Your task to perform on an android device: Search for seafood restaurants on Google Maps Image 0: 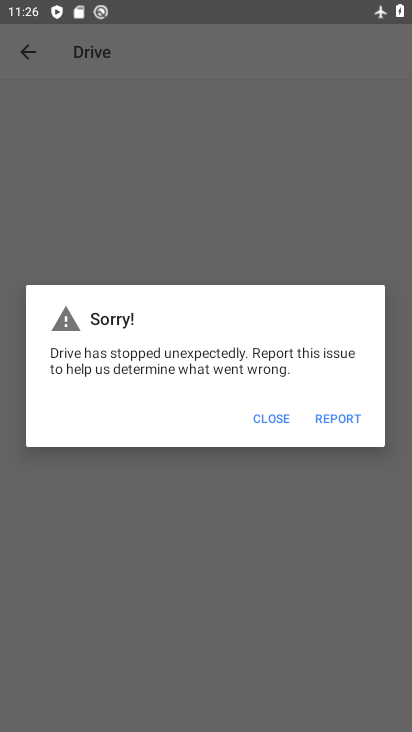
Step 0: press home button
Your task to perform on an android device: Search for seafood restaurants on Google Maps Image 1: 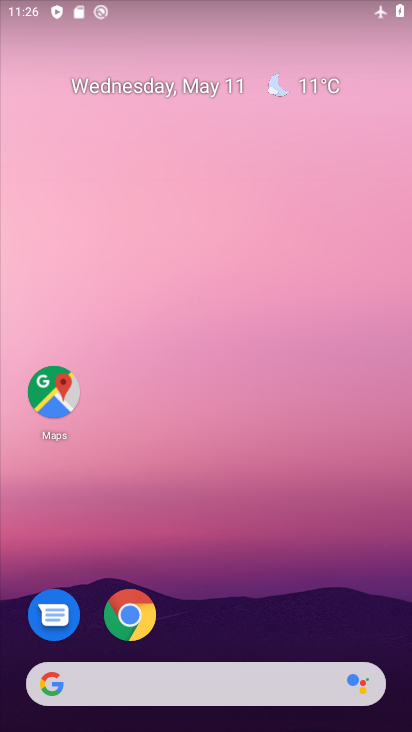
Step 1: drag from (279, 626) to (253, 159)
Your task to perform on an android device: Search for seafood restaurants on Google Maps Image 2: 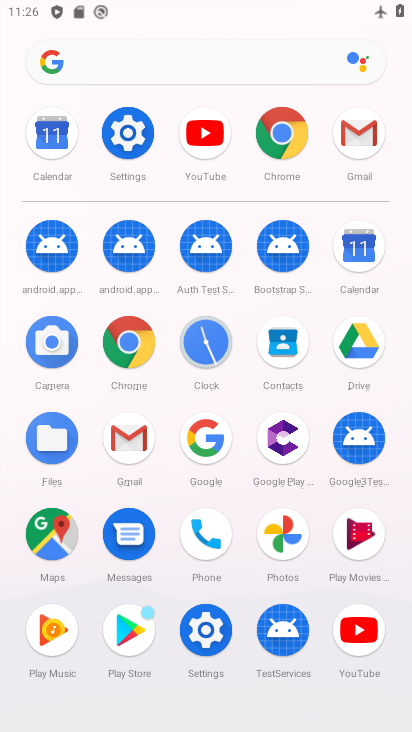
Step 2: click (48, 531)
Your task to perform on an android device: Search for seafood restaurants on Google Maps Image 3: 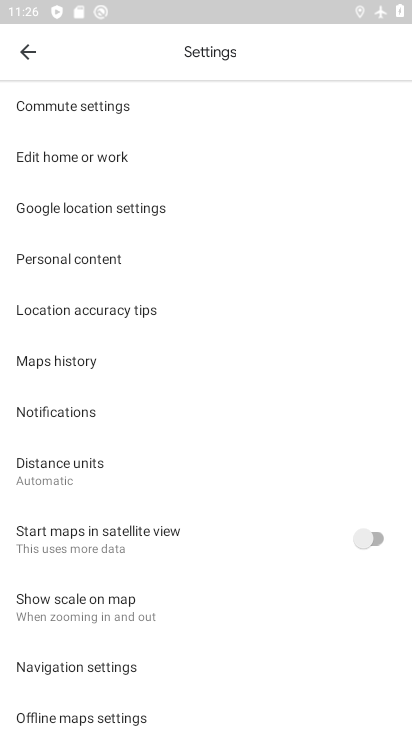
Step 3: click (15, 55)
Your task to perform on an android device: Search for seafood restaurants on Google Maps Image 4: 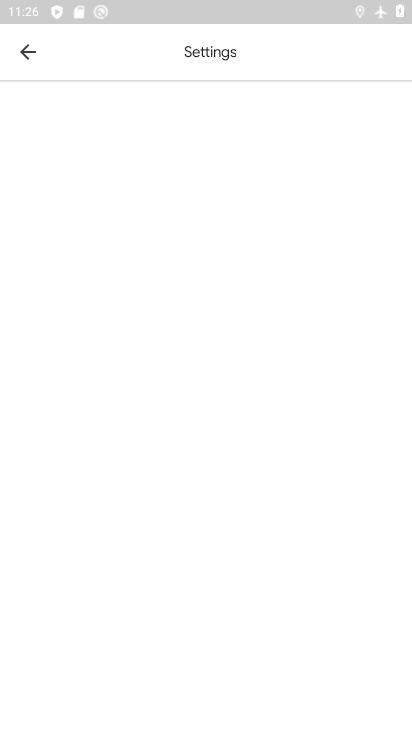
Step 4: click (21, 50)
Your task to perform on an android device: Search for seafood restaurants on Google Maps Image 5: 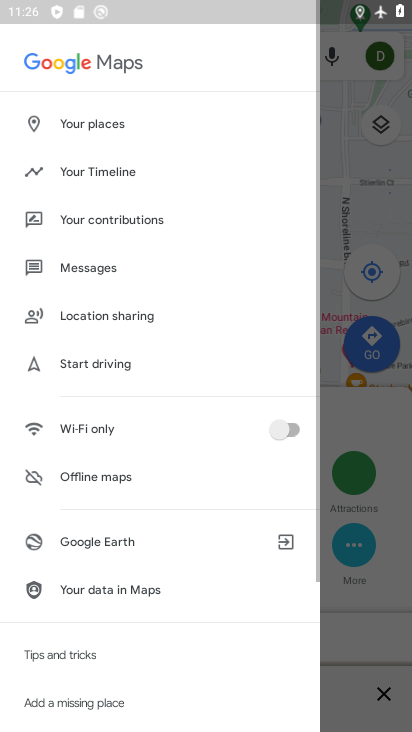
Step 5: click (148, 55)
Your task to perform on an android device: Search for seafood restaurants on Google Maps Image 6: 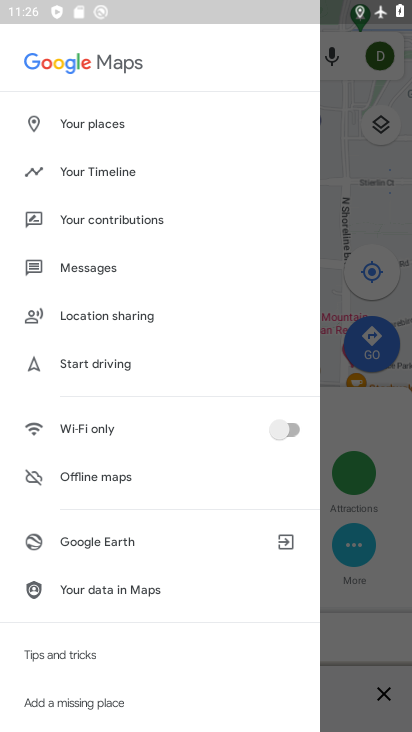
Step 6: click (364, 123)
Your task to perform on an android device: Search for seafood restaurants on Google Maps Image 7: 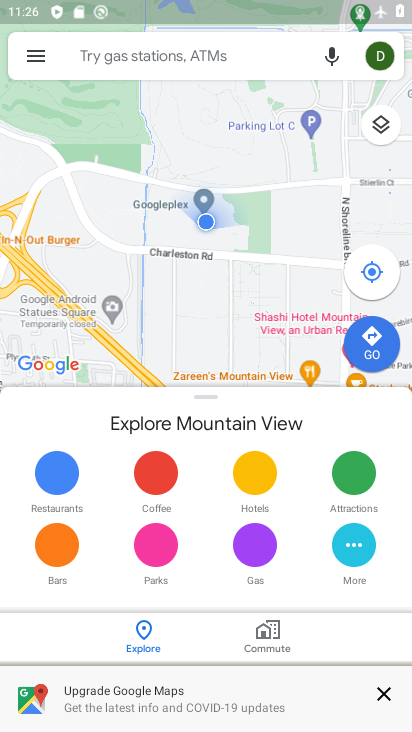
Step 7: click (242, 56)
Your task to perform on an android device: Search for seafood restaurants on Google Maps Image 8: 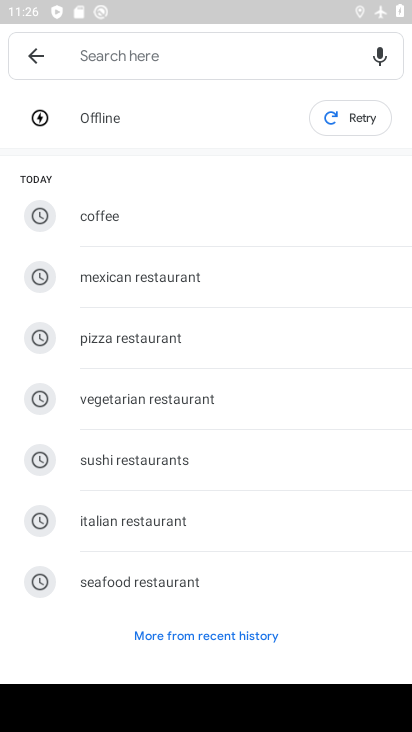
Step 8: type "seafood restaurants"
Your task to perform on an android device: Search for seafood restaurants on Google Maps Image 9: 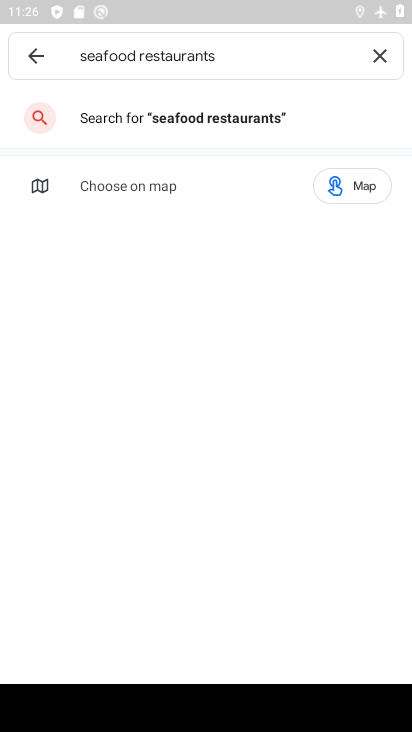
Step 9: click (254, 118)
Your task to perform on an android device: Search for seafood restaurants on Google Maps Image 10: 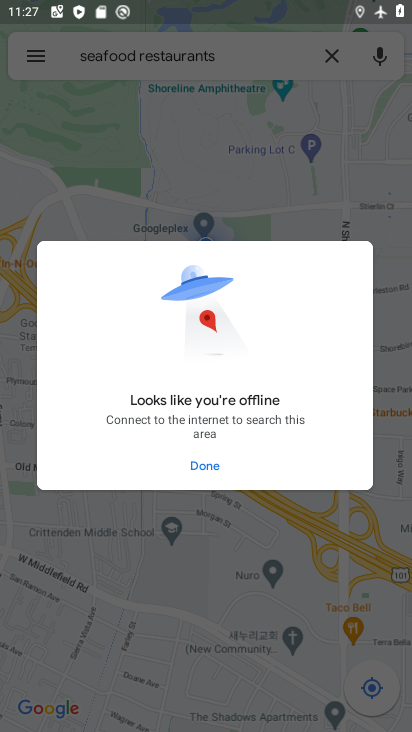
Step 10: task complete